Your task to perform on an android device: What's on my calendar today? Image 0: 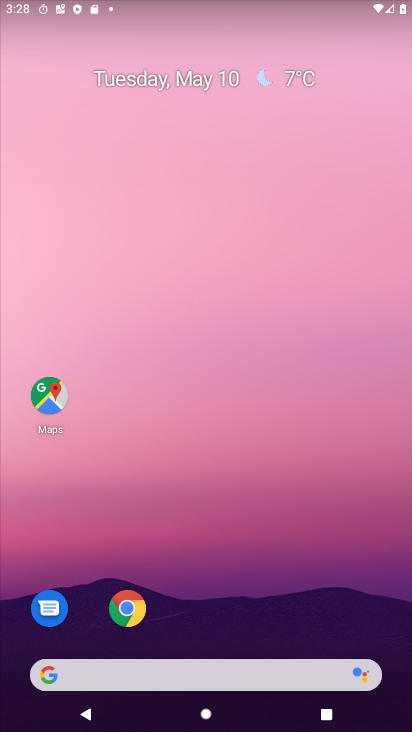
Step 0: drag from (333, 621) to (354, 27)
Your task to perform on an android device: What's on my calendar today? Image 1: 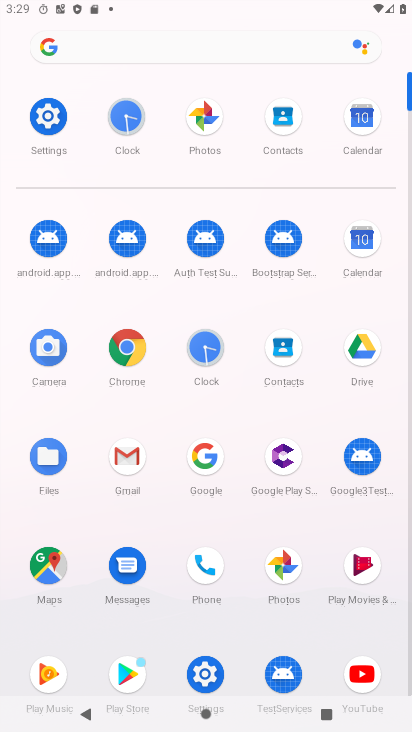
Step 1: click (359, 121)
Your task to perform on an android device: What's on my calendar today? Image 2: 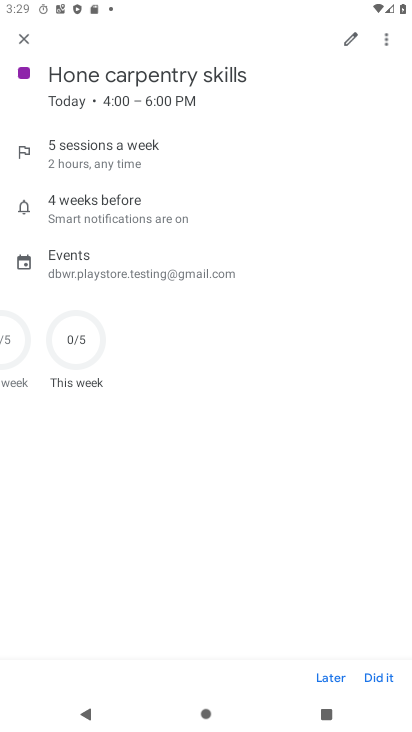
Step 2: click (29, 44)
Your task to perform on an android device: What's on my calendar today? Image 3: 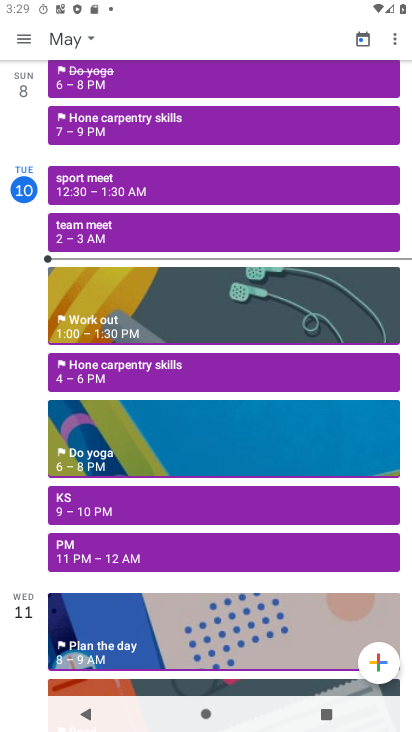
Step 3: click (148, 374)
Your task to perform on an android device: What's on my calendar today? Image 4: 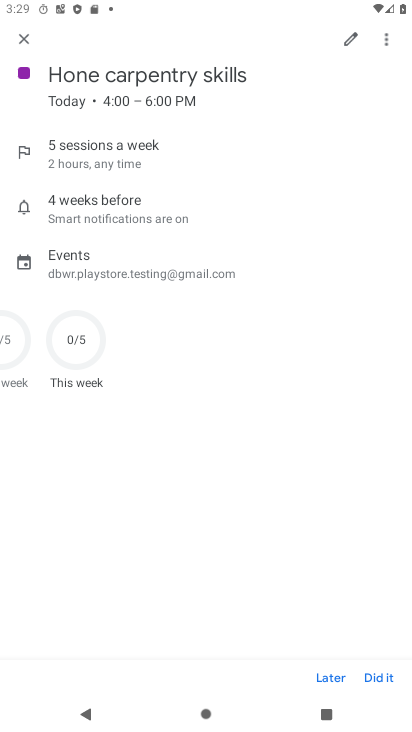
Step 4: task complete